Your task to perform on an android device: Open accessibility settings Image 0: 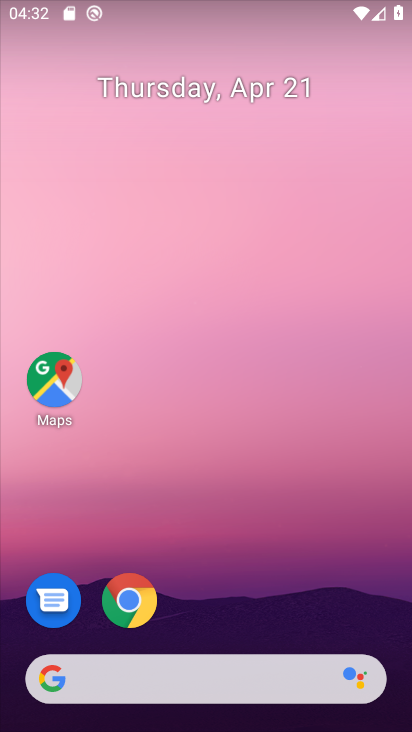
Step 0: drag from (365, 578) to (361, 13)
Your task to perform on an android device: Open accessibility settings Image 1: 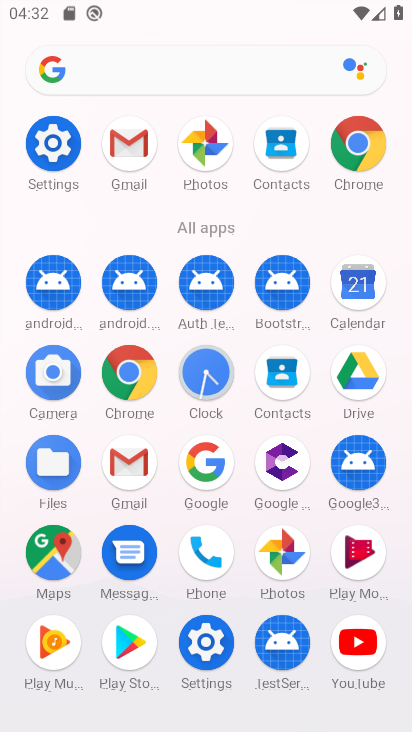
Step 1: click (56, 142)
Your task to perform on an android device: Open accessibility settings Image 2: 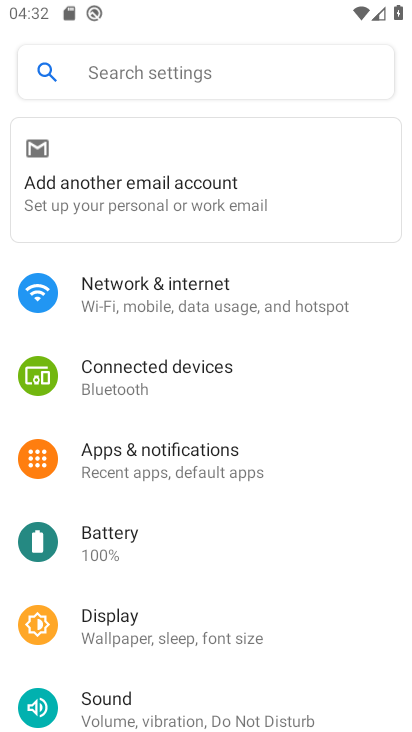
Step 2: drag from (348, 584) to (325, 282)
Your task to perform on an android device: Open accessibility settings Image 3: 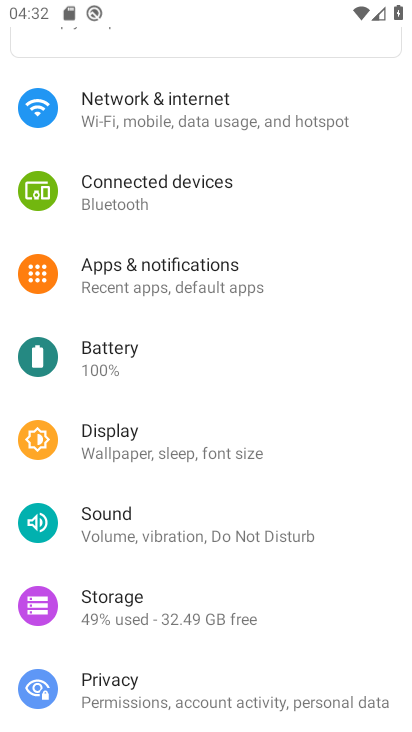
Step 3: drag from (348, 555) to (331, 256)
Your task to perform on an android device: Open accessibility settings Image 4: 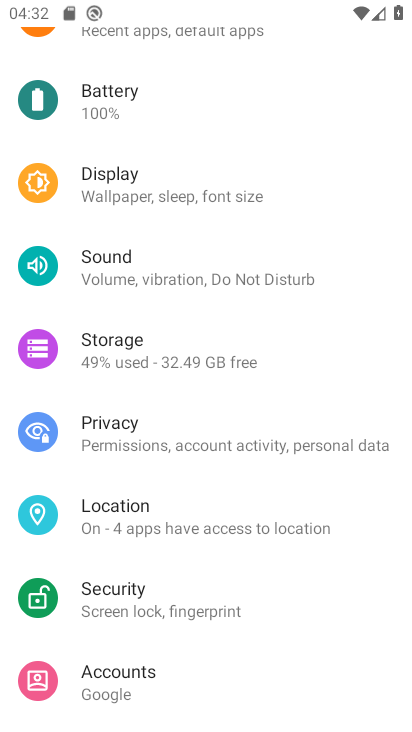
Step 4: drag from (331, 622) to (308, 312)
Your task to perform on an android device: Open accessibility settings Image 5: 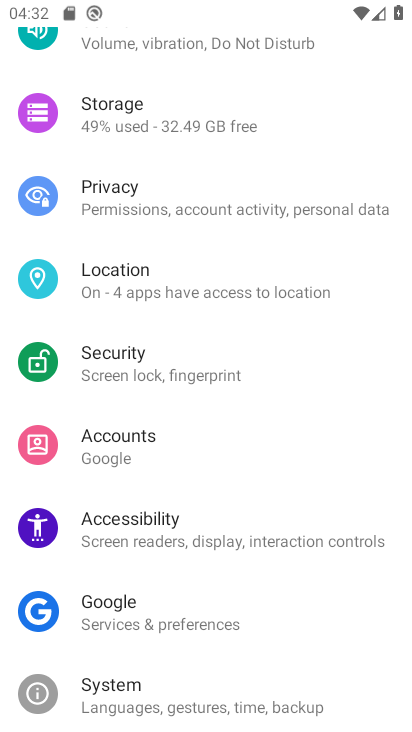
Step 5: click (102, 538)
Your task to perform on an android device: Open accessibility settings Image 6: 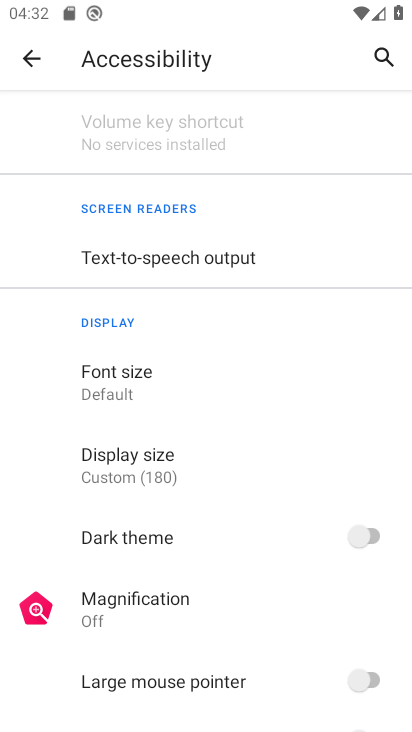
Step 6: task complete